Your task to perform on an android device: open chrome privacy settings Image 0: 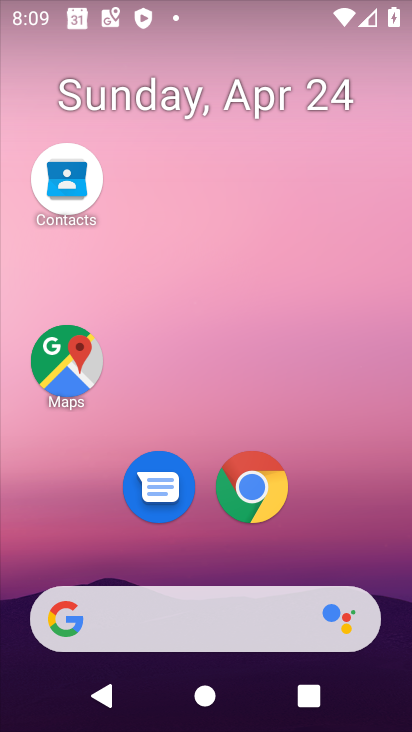
Step 0: click (247, 495)
Your task to perform on an android device: open chrome privacy settings Image 1: 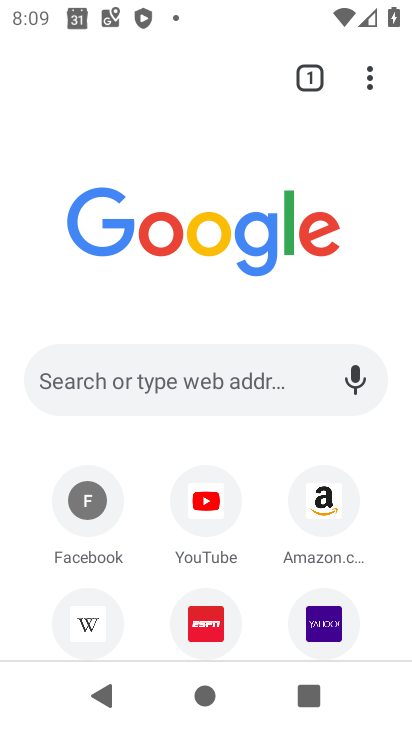
Step 1: drag from (364, 71) to (149, 551)
Your task to perform on an android device: open chrome privacy settings Image 2: 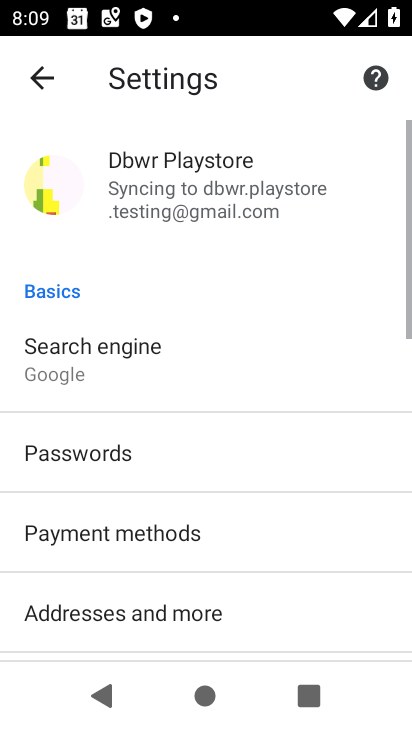
Step 2: drag from (168, 564) to (141, 54)
Your task to perform on an android device: open chrome privacy settings Image 3: 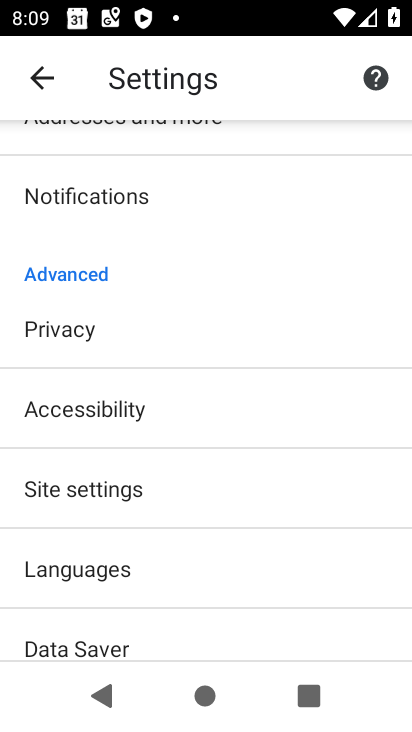
Step 3: click (84, 337)
Your task to perform on an android device: open chrome privacy settings Image 4: 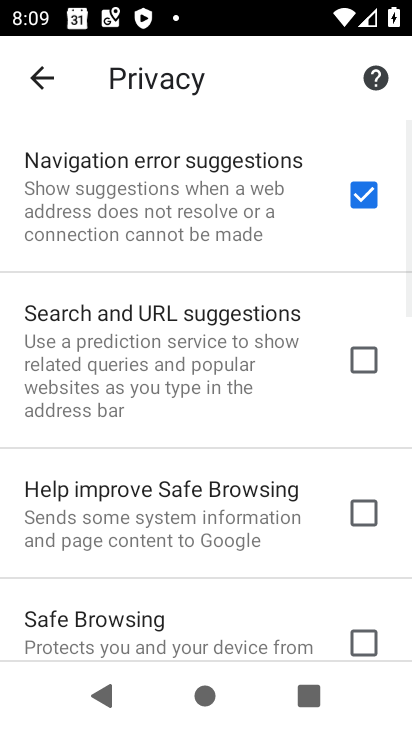
Step 4: task complete